Your task to perform on an android device: check data usage Image 0: 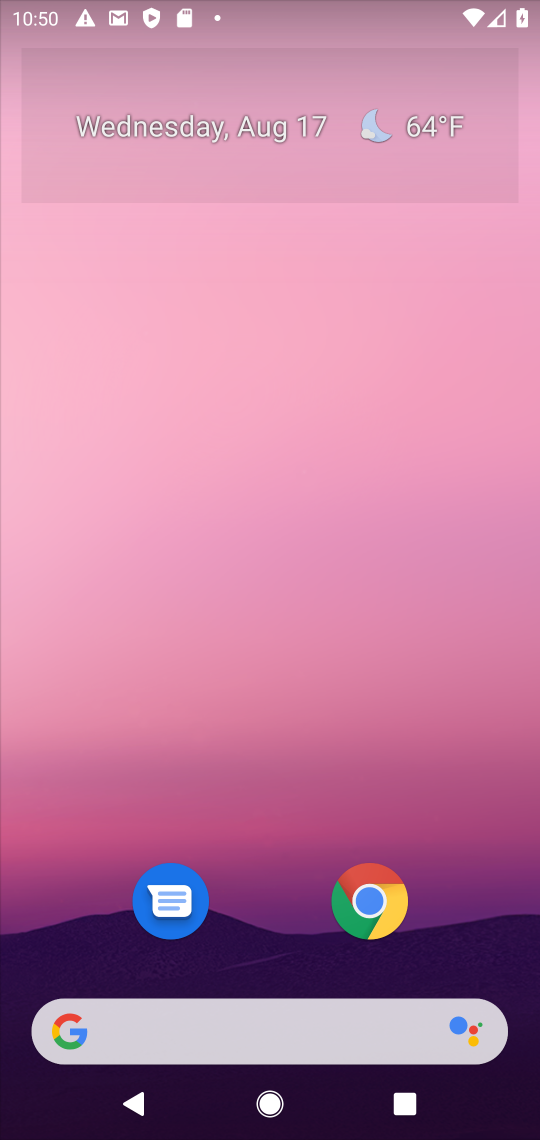
Step 0: press home button
Your task to perform on an android device: check data usage Image 1: 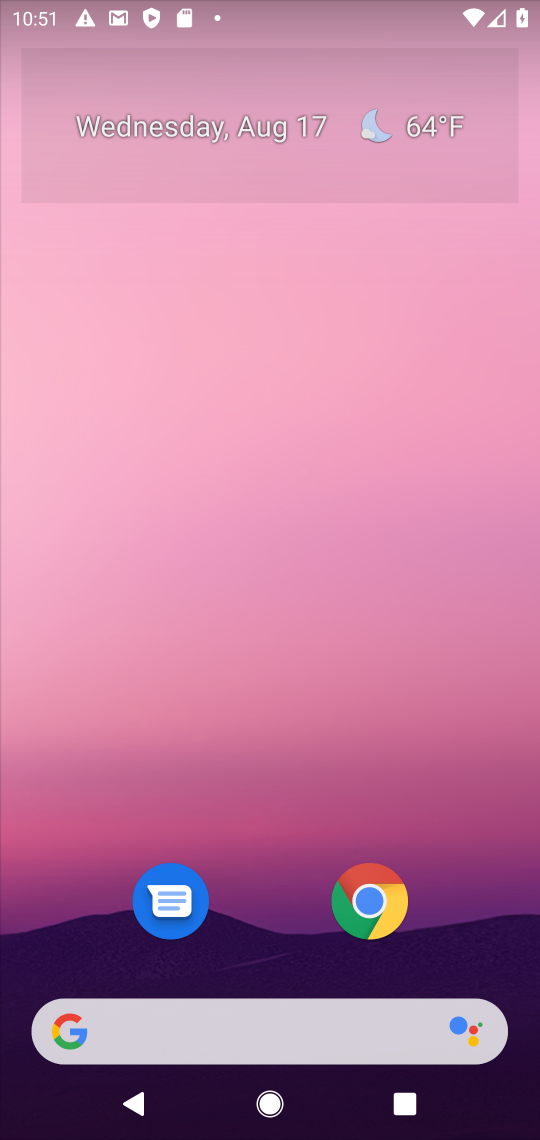
Step 1: drag from (268, 919) to (356, 98)
Your task to perform on an android device: check data usage Image 2: 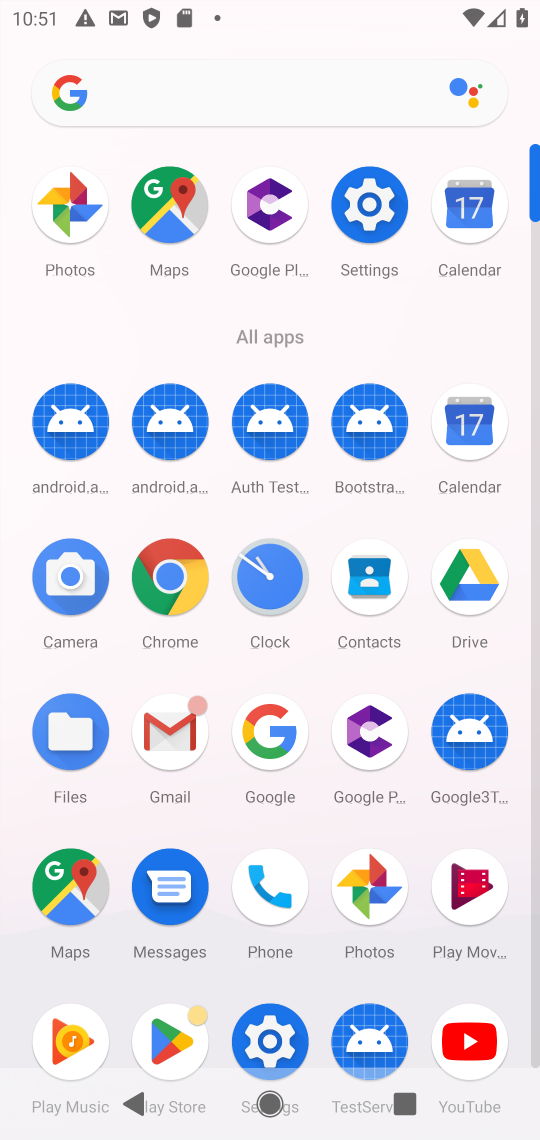
Step 2: click (366, 198)
Your task to perform on an android device: check data usage Image 3: 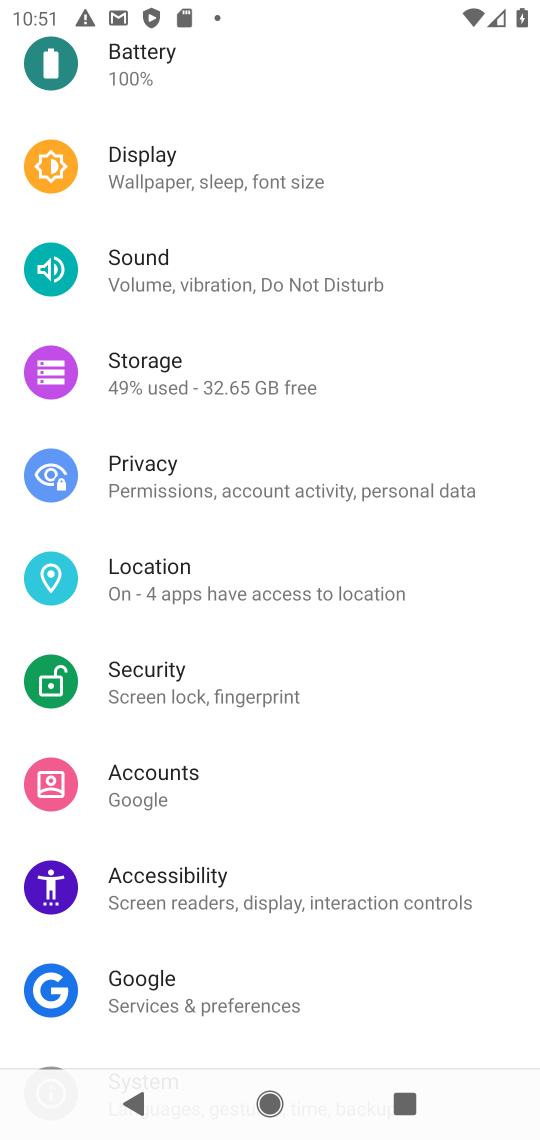
Step 3: drag from (250, 125) to (228, 571)
Your task to perform on an android device: check data usage Image 4: 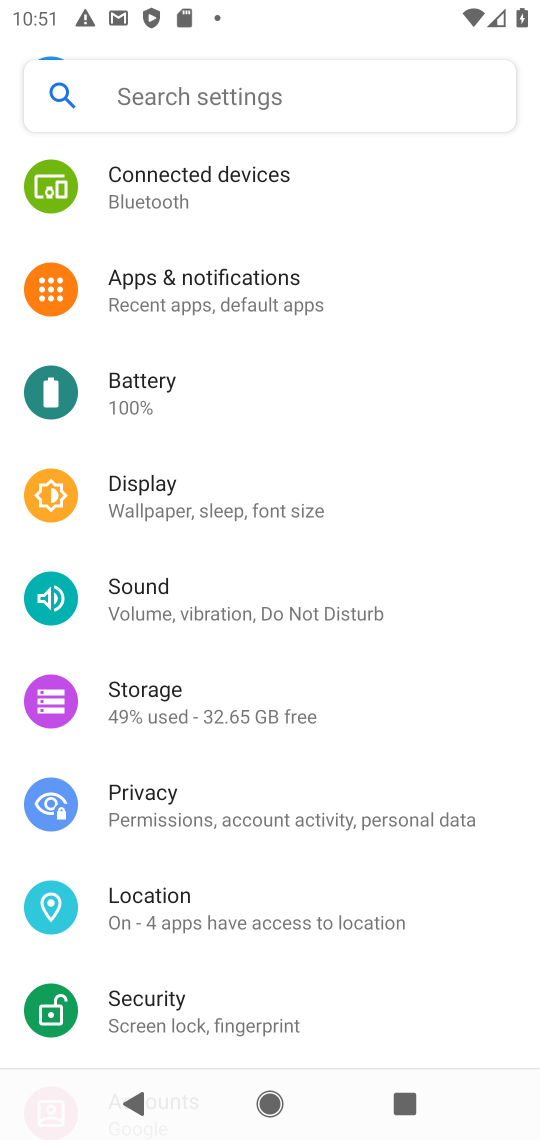
Step 4: click (212, 191)
Your task to perform on an android device: check data usage Image 5: 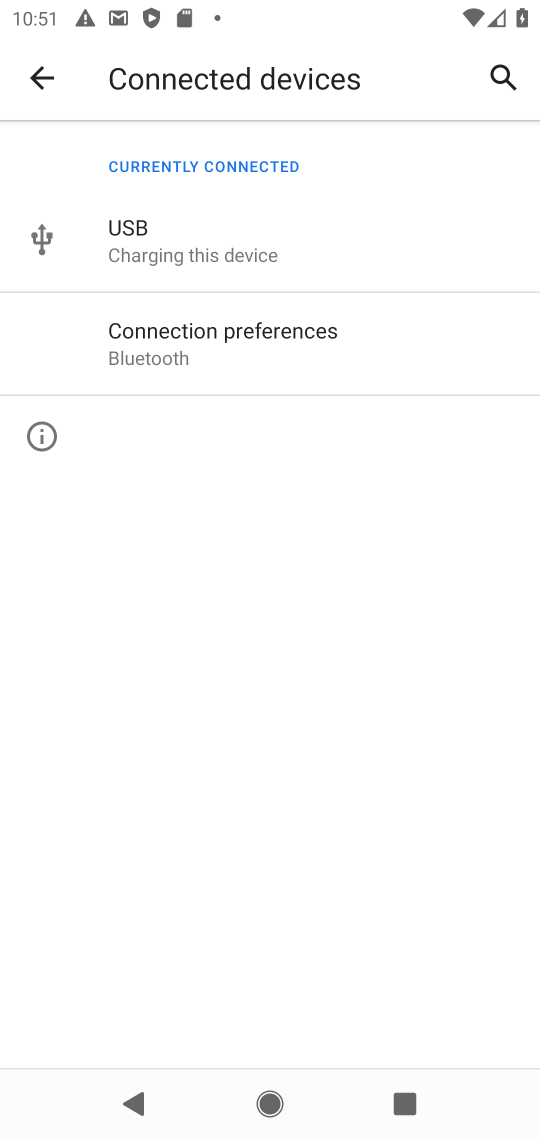
Step 5: click (45, 72)
Your task to perform on an android device: check data usage Image 6: 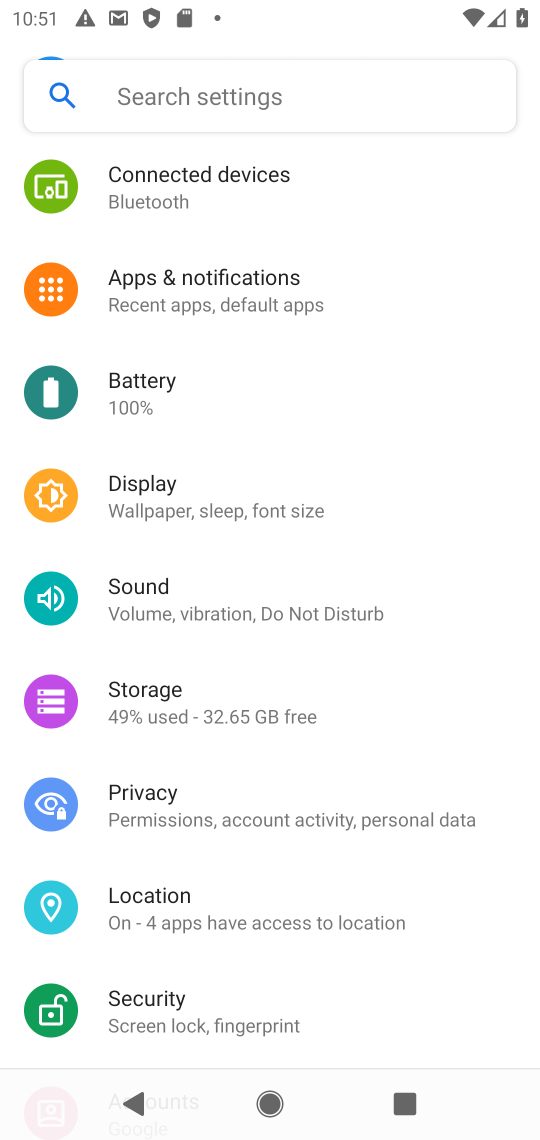
Step 6: drag from (211, 236) to (254, 382)
Your task to perform on an android device: check data usage Image 7: 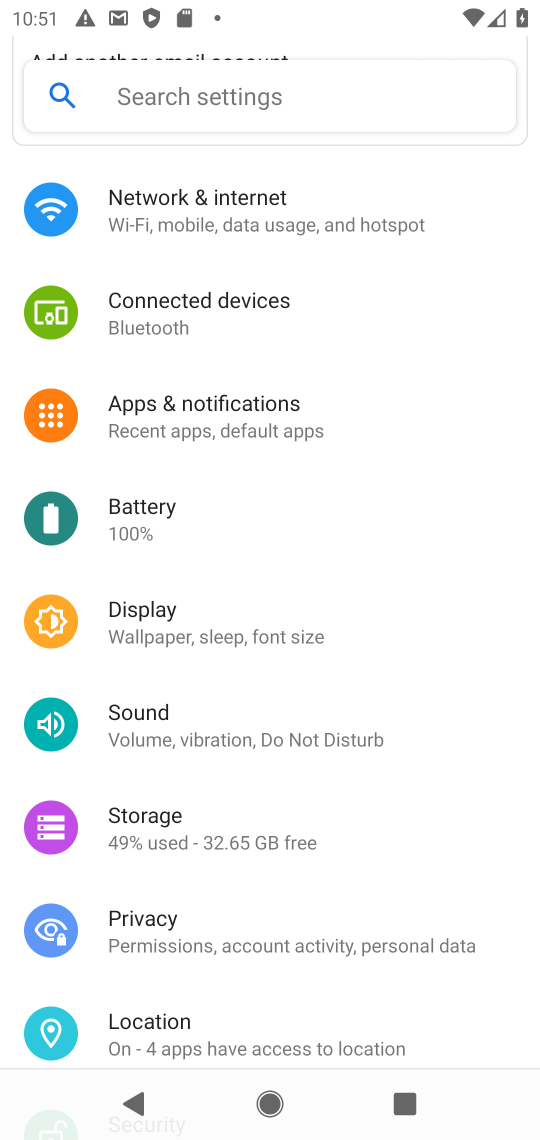
Step 7: click (261, 221)
Your task to perform on an android device: check data usage Image 8: 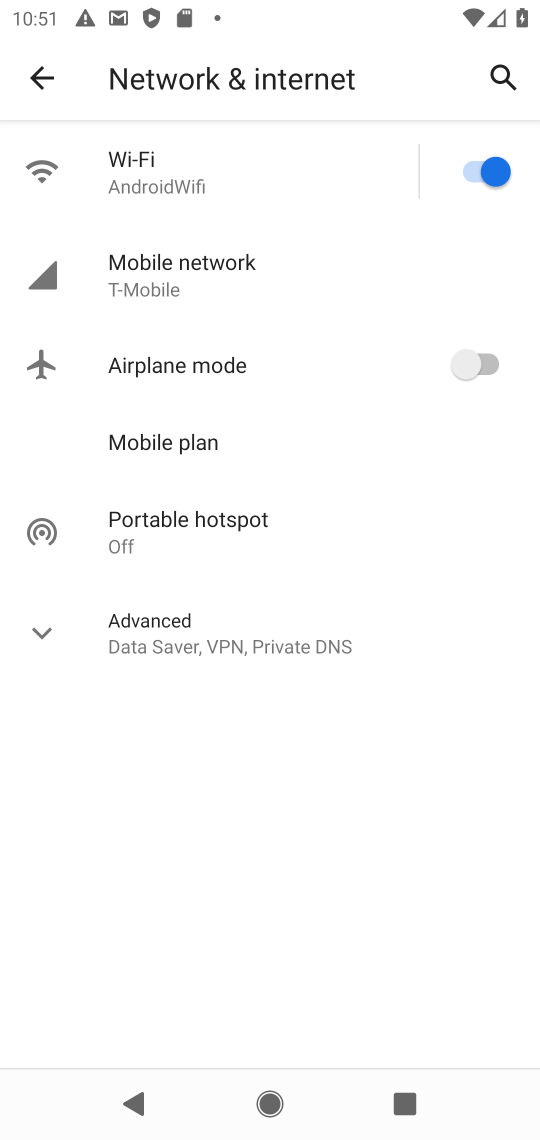
Step 8: click (162, 289)
Your task to perform on an android device: check data usage Image 9: 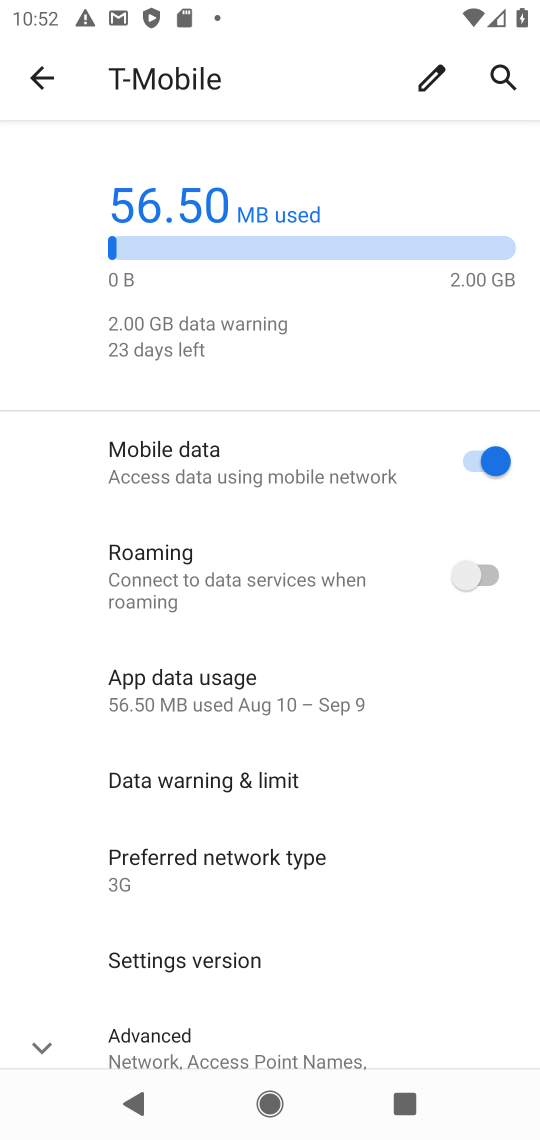
Step 9: task complete